Your task to perform on an android device: toggle notifications settings in the gmail app Image 0: 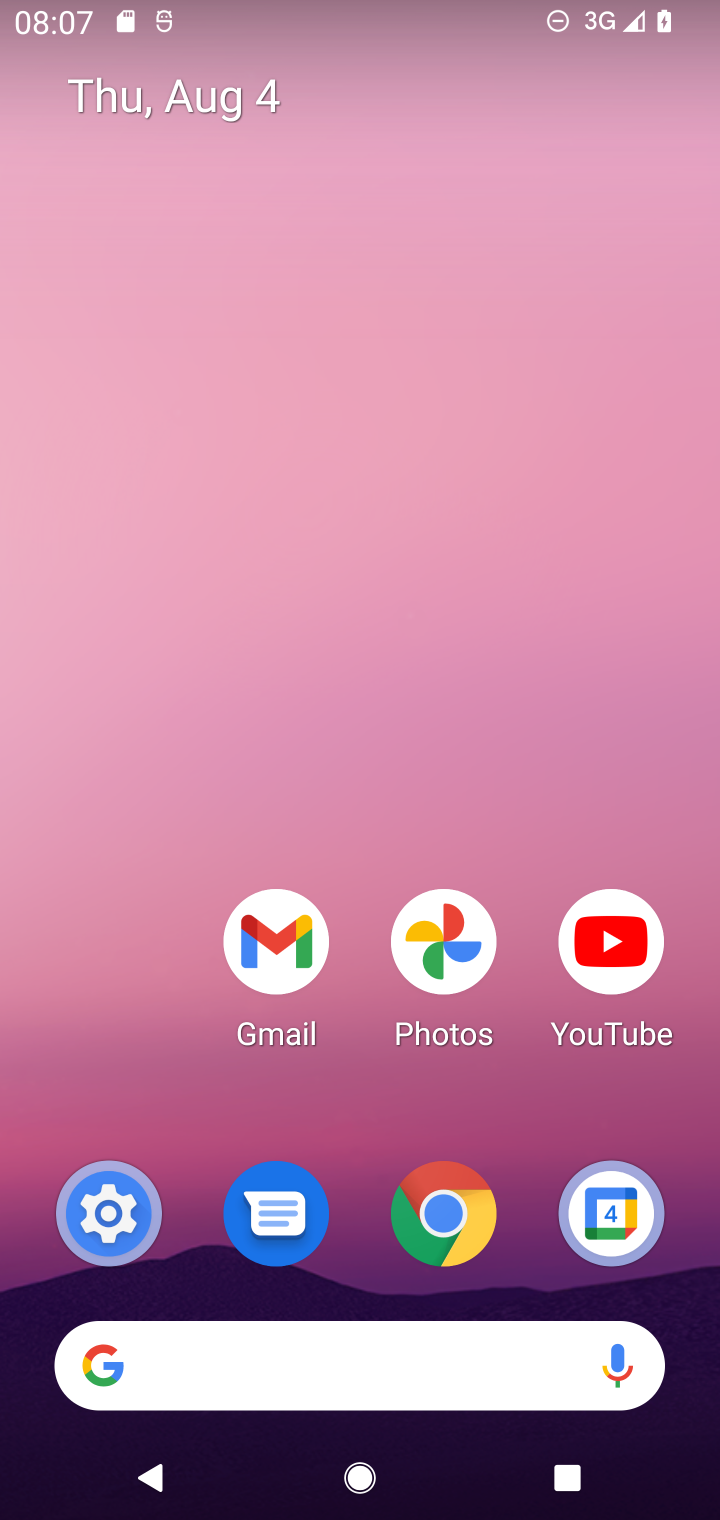
Step 0: press home button
Your task to perform on an android device: toggle notifications settings in the gmail app Image 1: 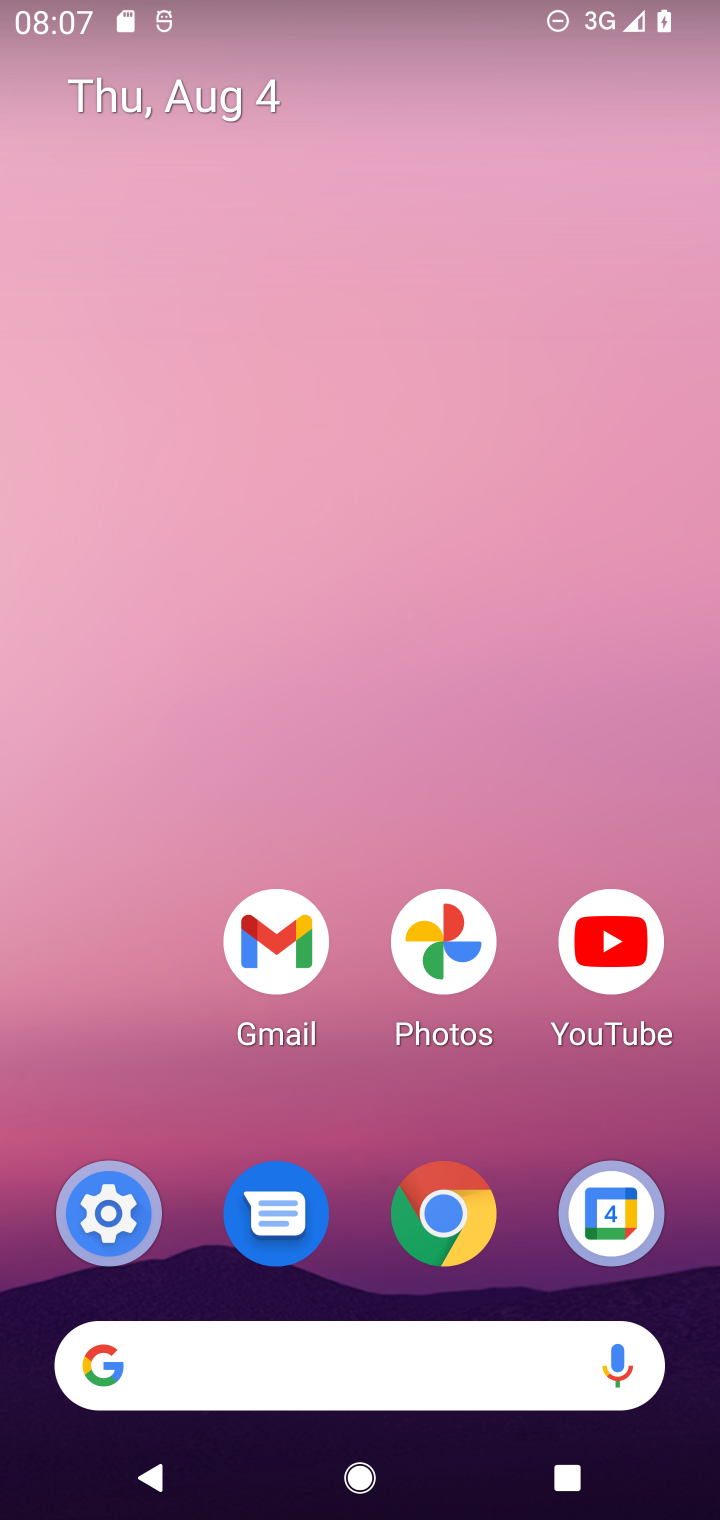
Step 1: drag from (126, 1077) to (105, 311)
Your task to perform on an android device: toggle notifications settings in the gmail app Image 2: 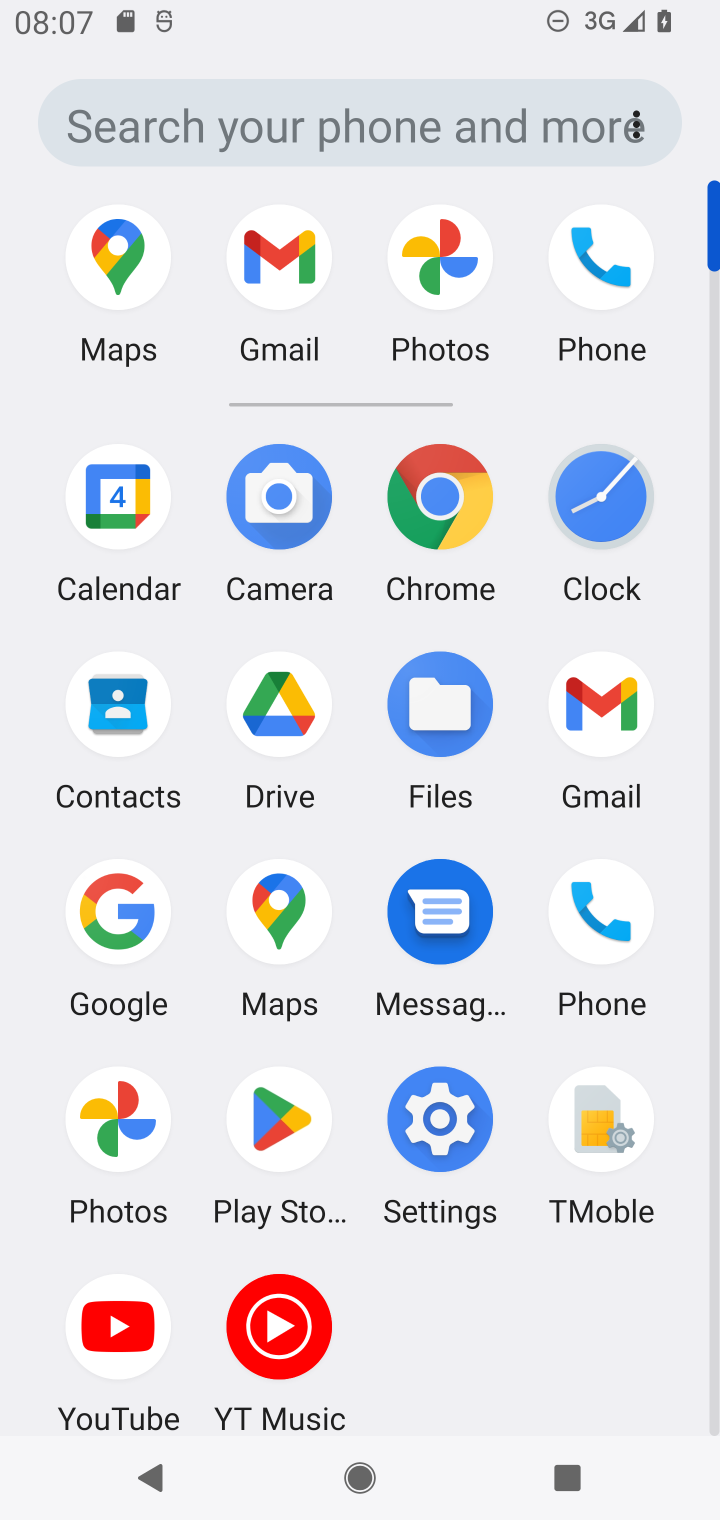
Step 2: click (615, 709)
Your task to perform on an android device: toggle notifications settings in the gmail app Image 3: 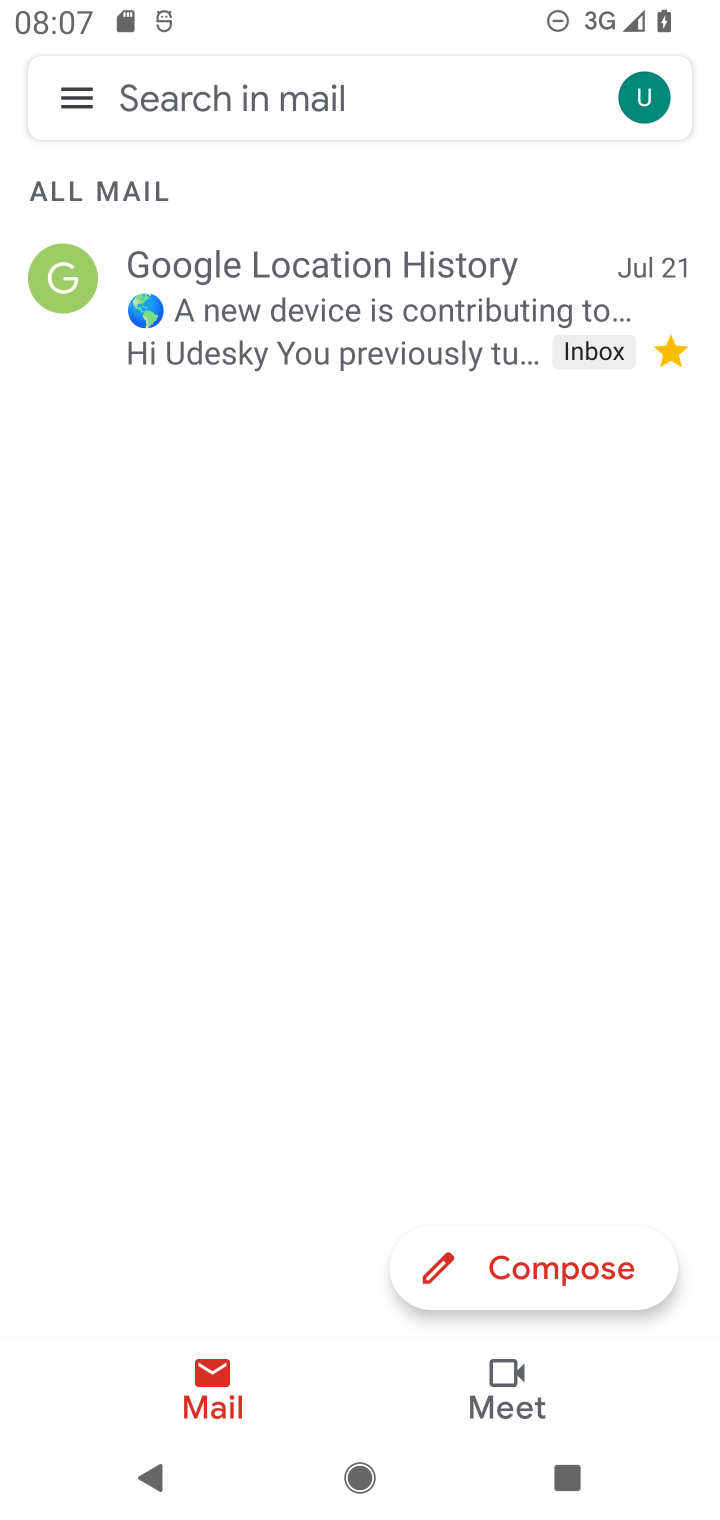
Step 3: click (69, 98)
Your task to perform on an android device: toggle notifications settings in the gmail app Image 4: 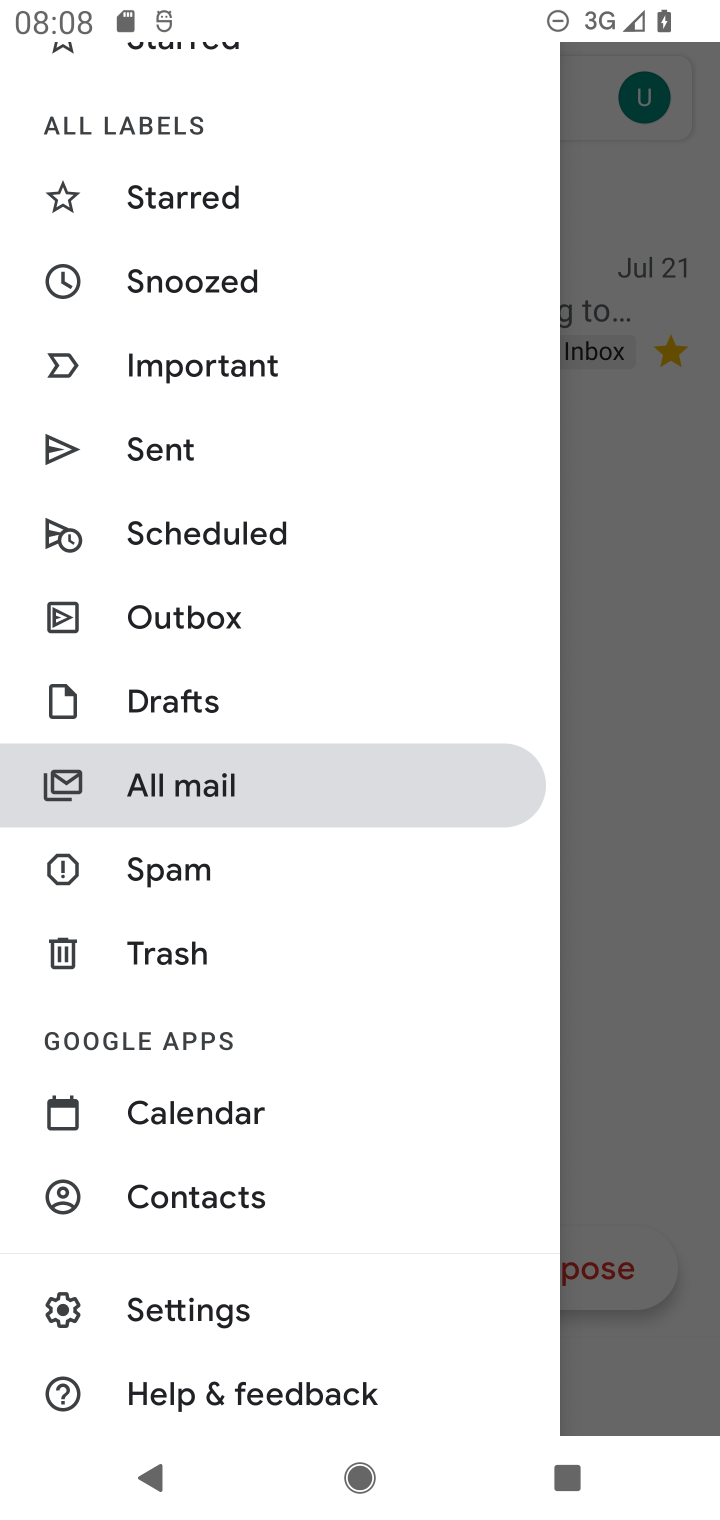
Step 4: click (214, 1310)
Your task to perform on an android device: toggle notifications settings in the gmail app Image 5: 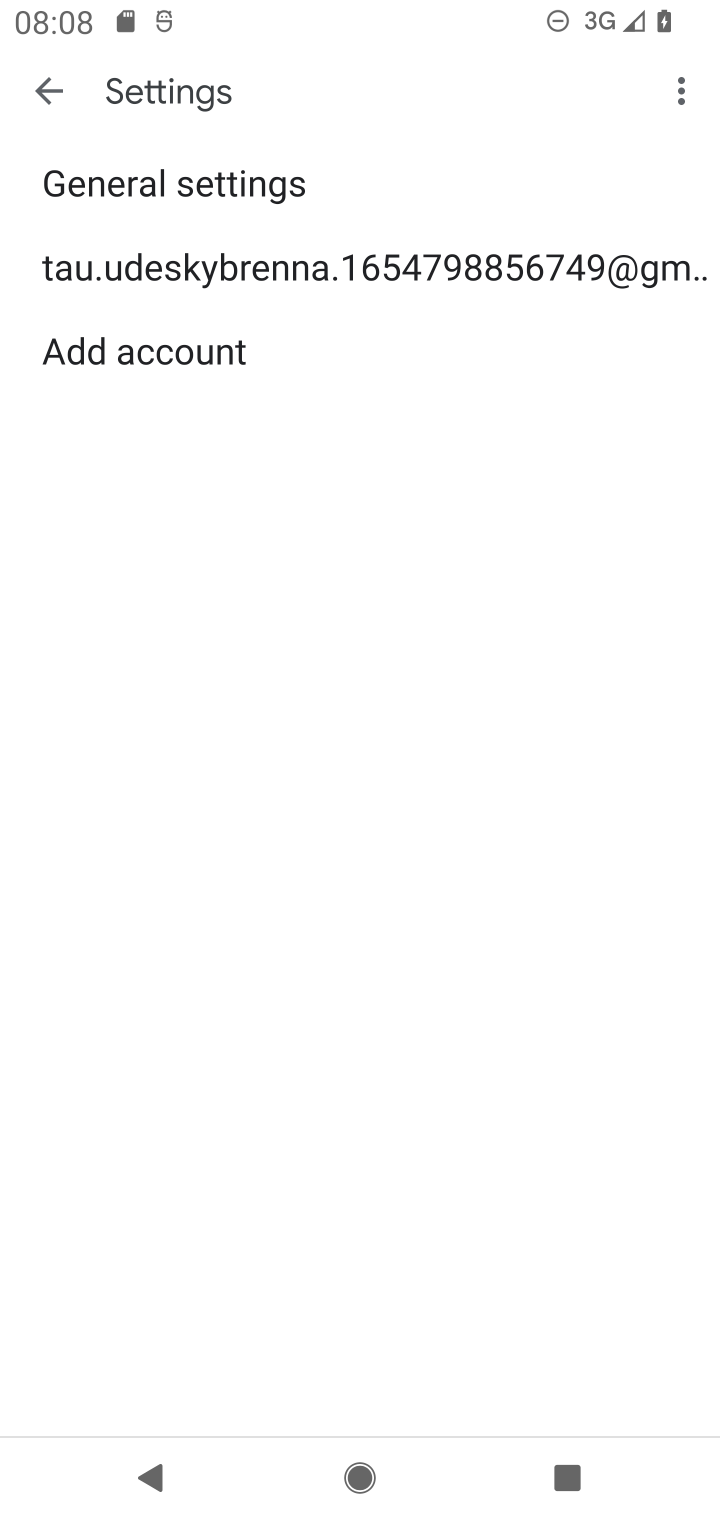
Step 5: click (440, 267)
Your task to perform on an android device: toggle notifications settings in the gmail app Image 6: 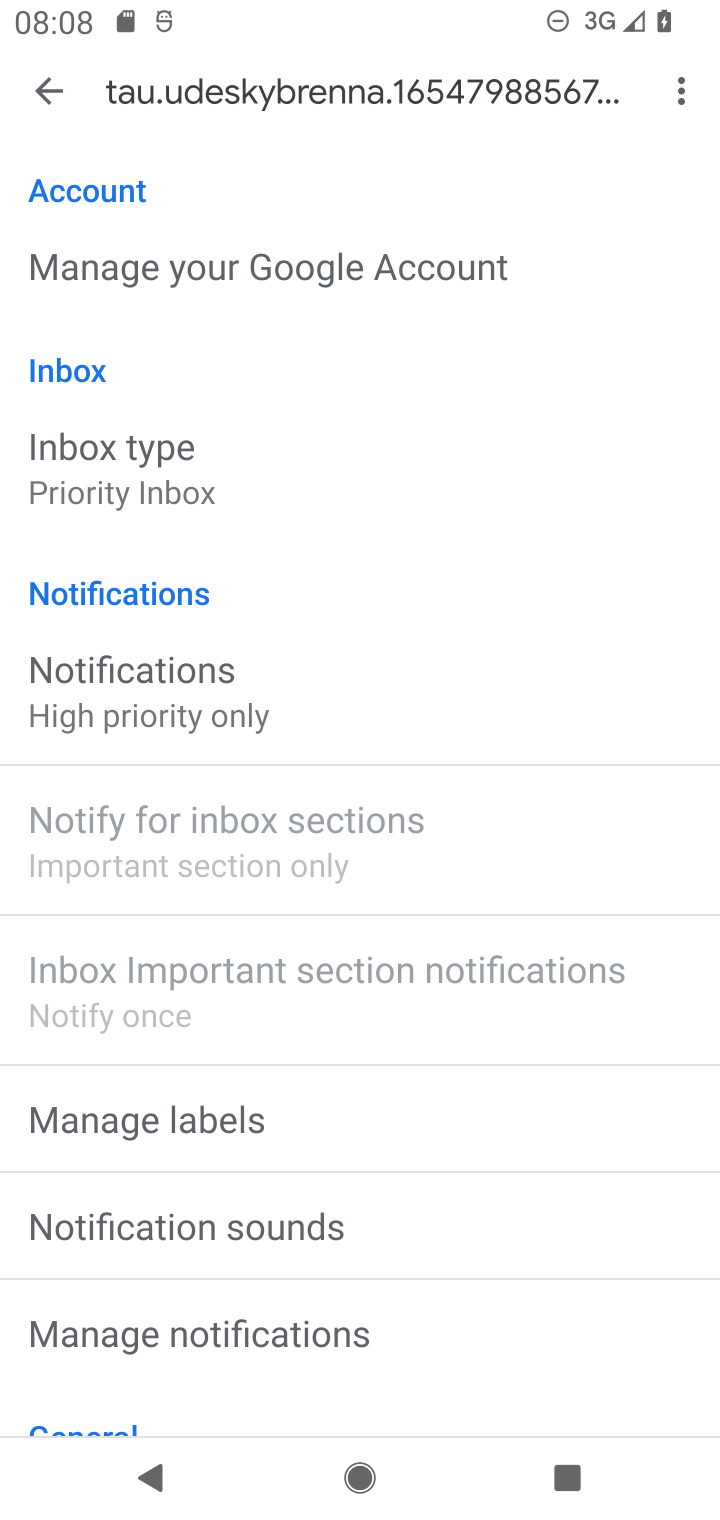
Step 6: drag from (580, 1173) to (563, 936)
Your task to perform on an android device: toggle notifications settings in the gmail app Image 7: 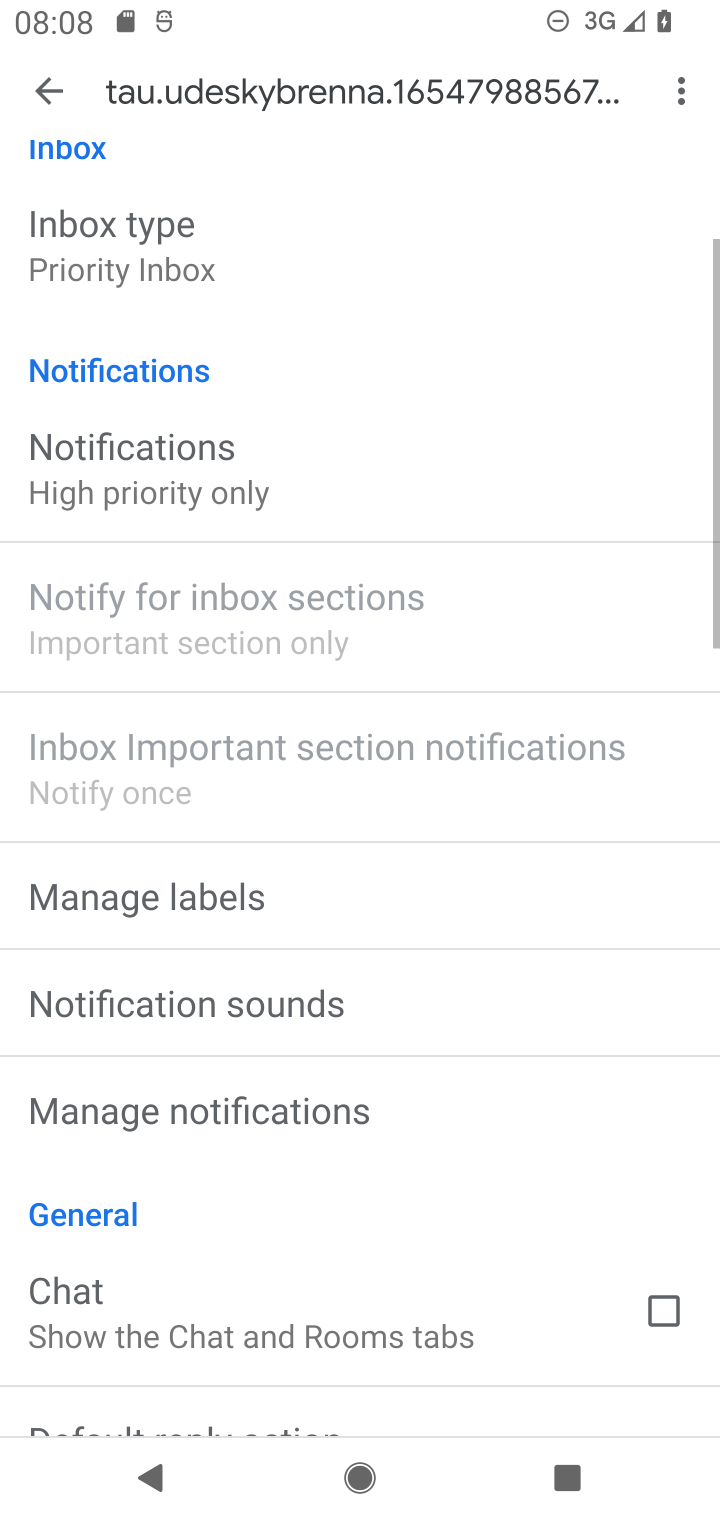
Step 7: drag from (513, 1144) to (468, 859)
Your task to perform on an android device: toggle notifications settings in the gmail app Image 8: 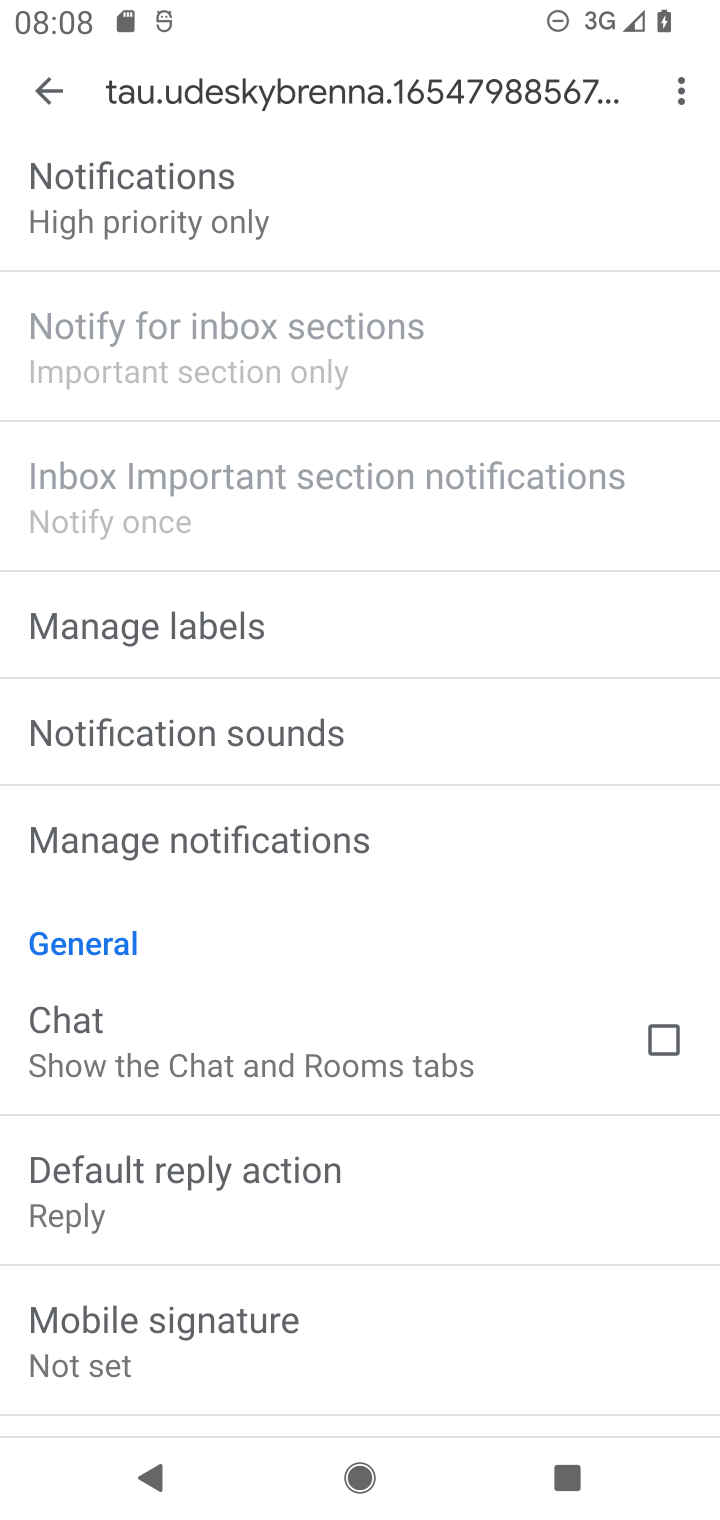
Step 8: click (422, 847)
Your task to perform on an android device: toggle notifications settings in the gmail app Image 9: 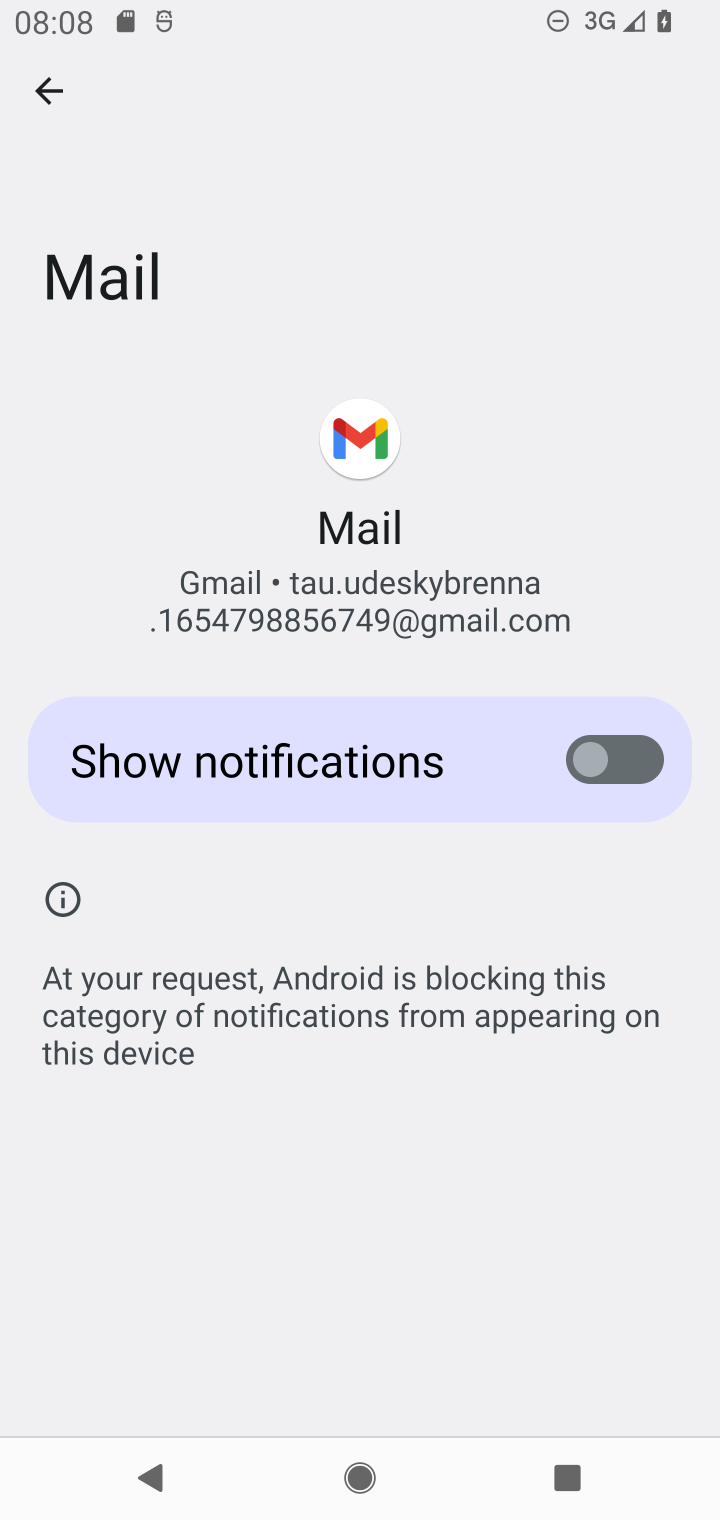
Step 9: click (609, 762)
Your task to perform on an android device: toggle notifications settings in the gmail app Image 10: 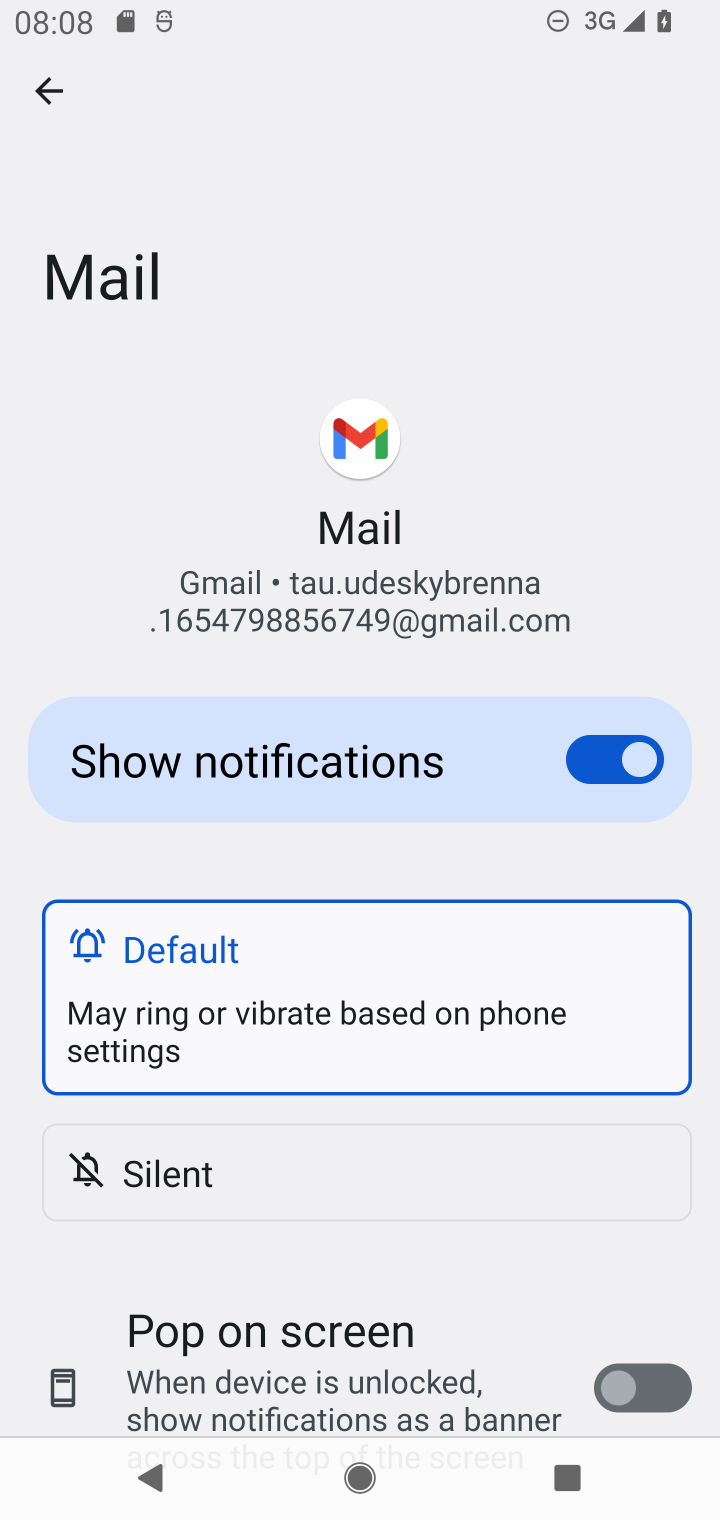
Step 10: task complete